Your task to perform on an android device: toggle wifi Image 0: 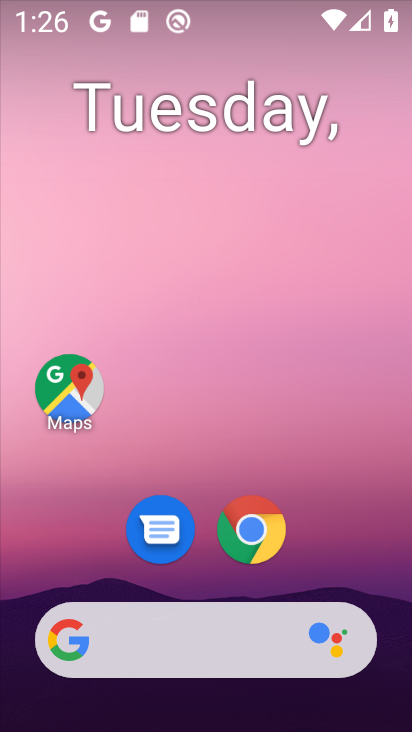
Step 0: click (258, 533)
Your task to perform on an android device: toggle wifi Image 1: 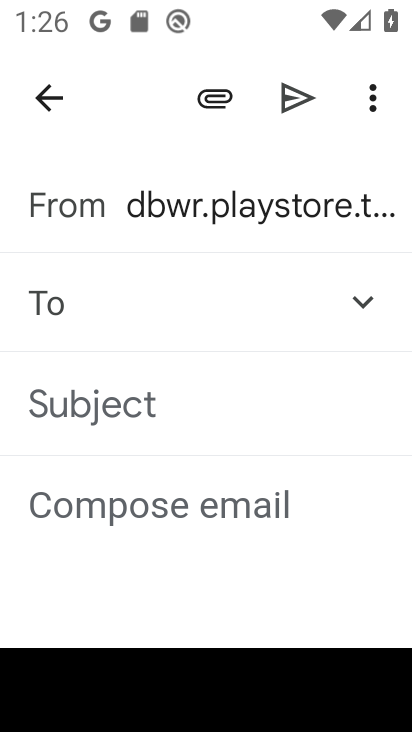
Step 1: press home button
Your task to perform on an android device: toggle wifi Image 2: 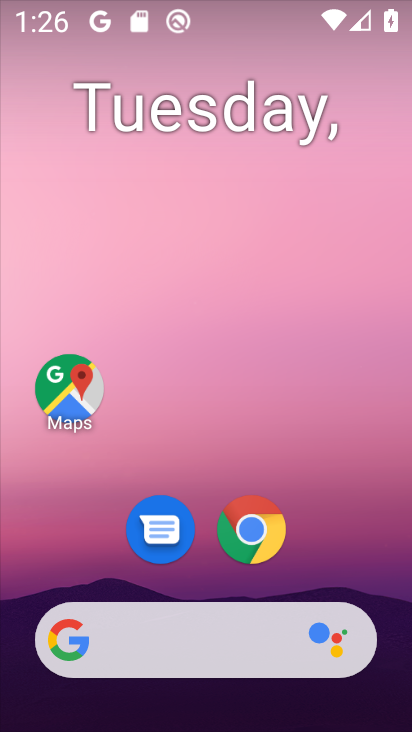
Step 2: drag from (335, 182) to (308, 100)
Your task to perform on an android device: toggle wifi Image 3: 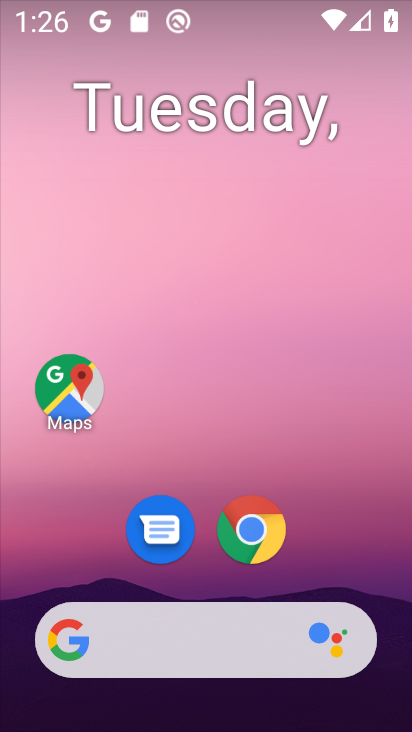
Step 3: drag from (338, 491) to (299, 141)
Your task to perform on an android device: toggle wifi Image 4: 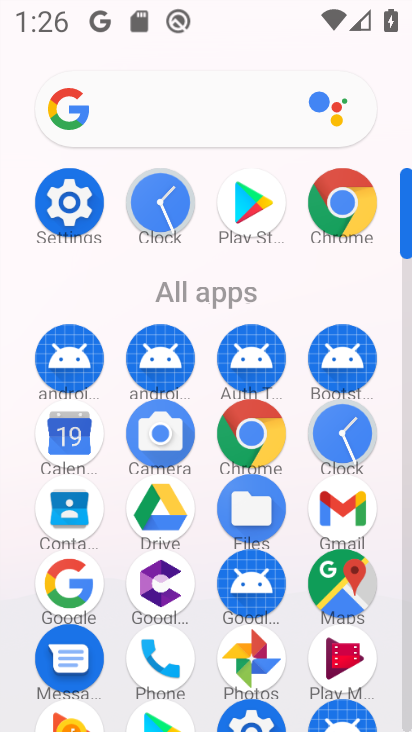
Step 4: click (73, 205)
Your task to perform on an android device: toggle wifi Image 5: 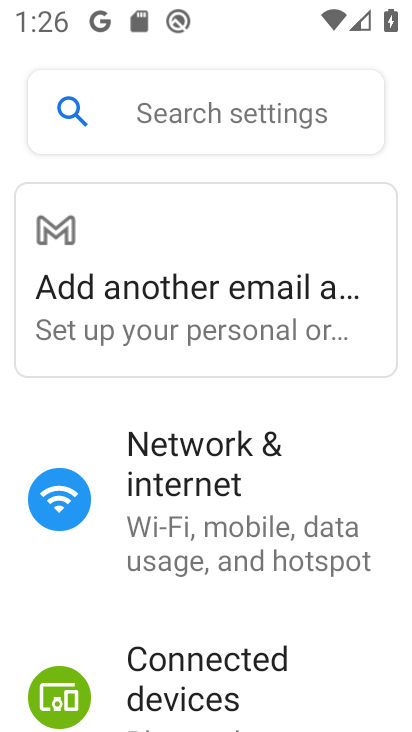
Step 5: click (190, 503)
Your task to perform on an android device: toggle wifi Image 6: 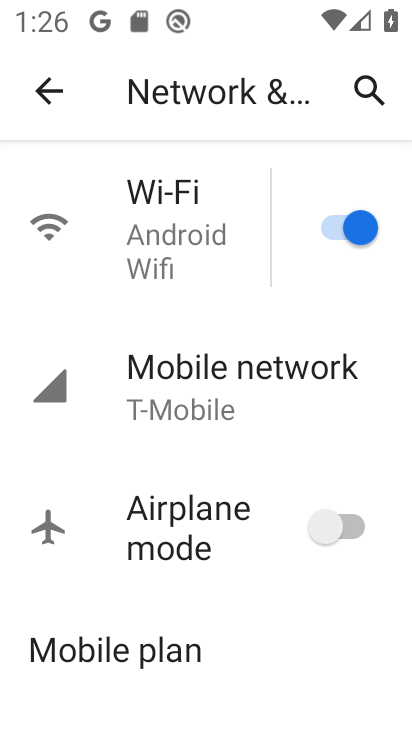
Step 6: click (329, 225)
Your task to perform on an android device: toggle wifi Image 7: 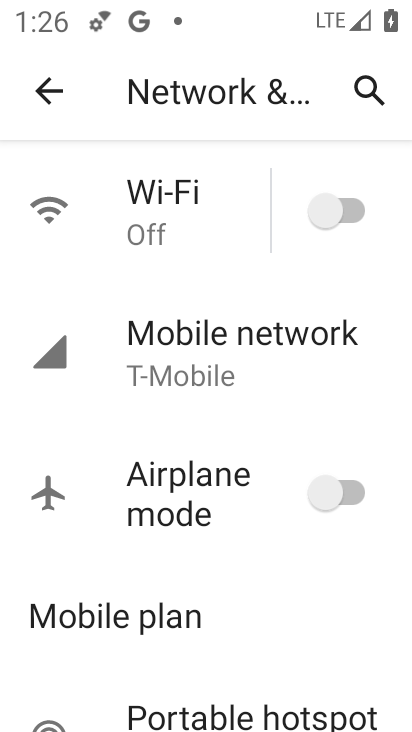
Step 7: task complete